Your task to perform on an android device: delete the emails in spam in the gmail app Image 0: 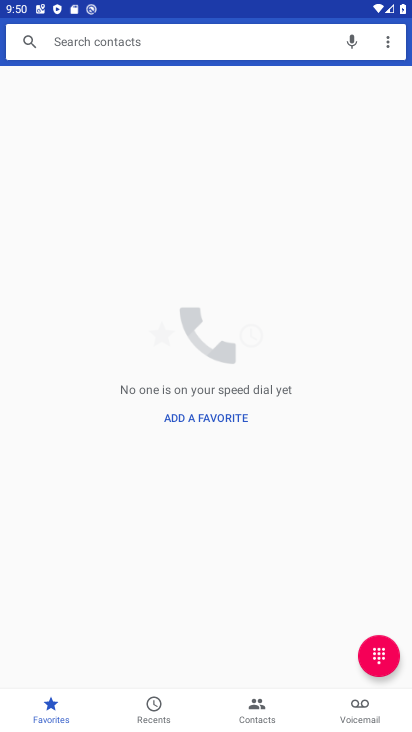
Step 0: press home button
Your task to perform on an android device: delete the emails in spam in the gmail app Image 1: 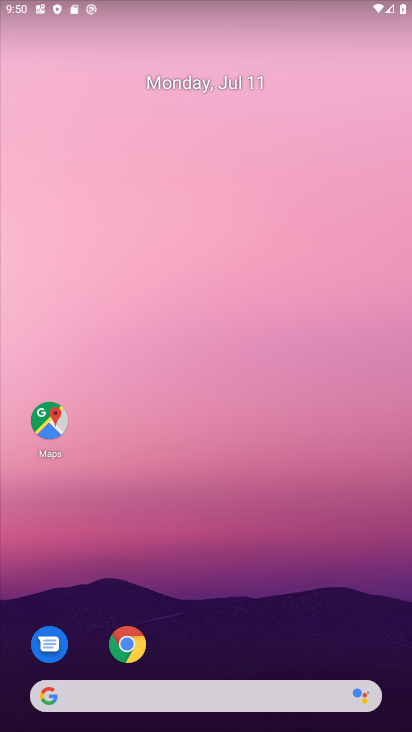
Step 1: drag from (199, 338) to (204, 10)
Your task to perform on an android device: delete the emails in spam in the gmail app Image 2: 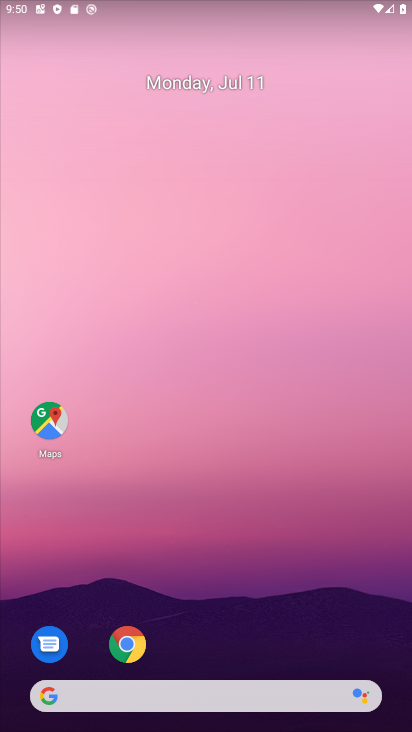
Step 2: drag from (219, 663) to (222, 43)
Your task to perform on an android device: delete the emails in spam in the gmail app Image 3: 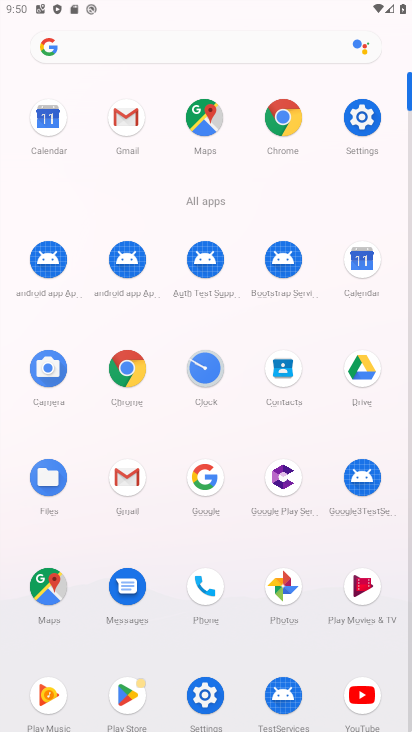
Step 3: click (123, 111)
Your task to perform on an android device: delete the emails in spam in the gmail app Image 4: 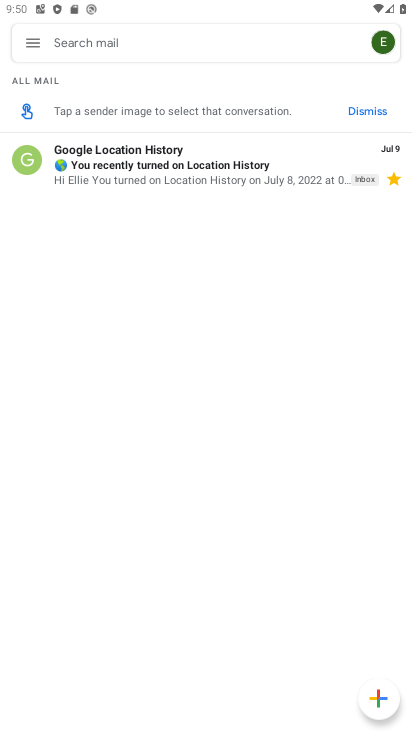
Step 4: click (32, 34)
Your task to perform on an android device: delete the emails in spam in the gmail app Image 5: 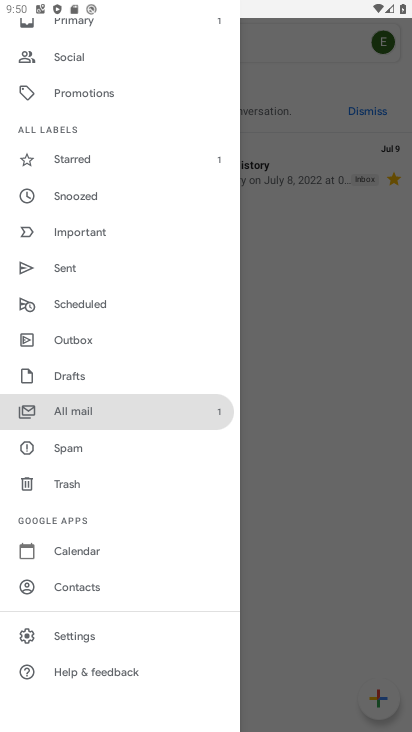
Step 5: click (86, 443)
Your task to perform on an android device: delete the emails in spam in the gmail app Image 6: 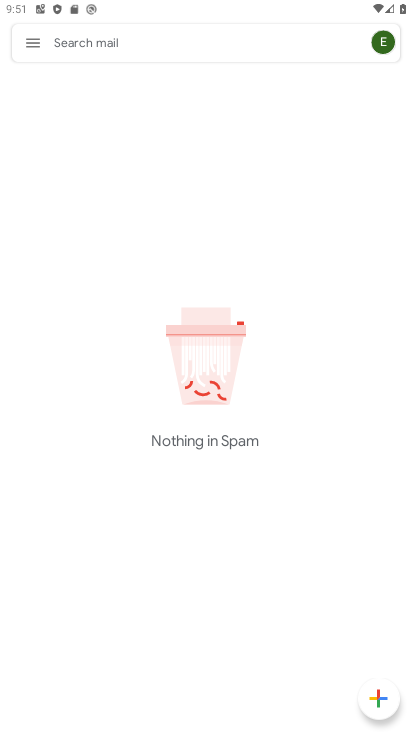
Step 6: task complete